Your task to perform on an android device: What is the recent news? Image 0: 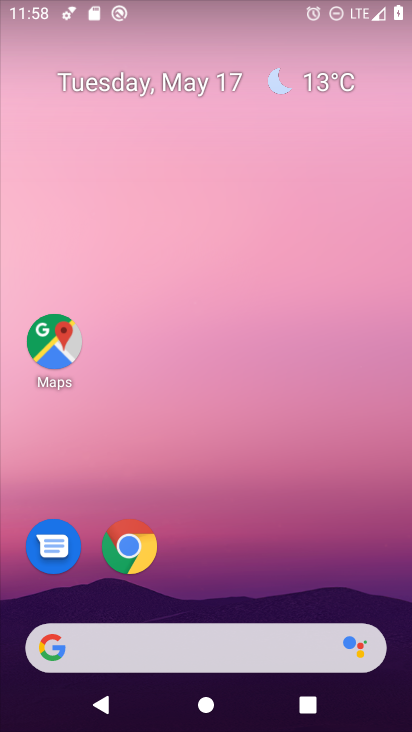
Step 0: click (126, 648)
Your task to perform on an android device: What is the recent news? Image 1: 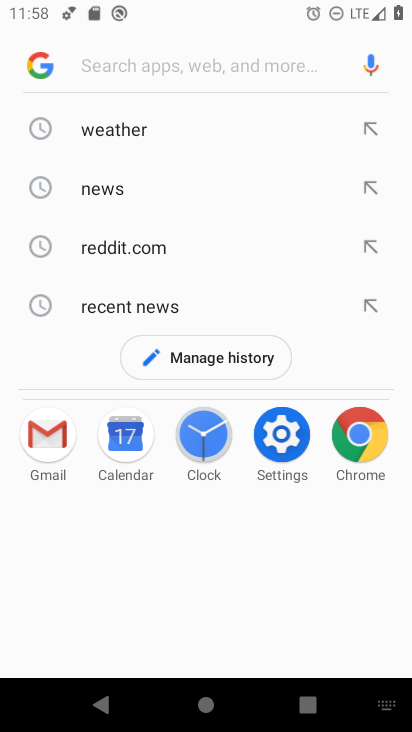
Step 1: click (147, 309)
Your task to perform on an android device: What is the recent news? Image 2: 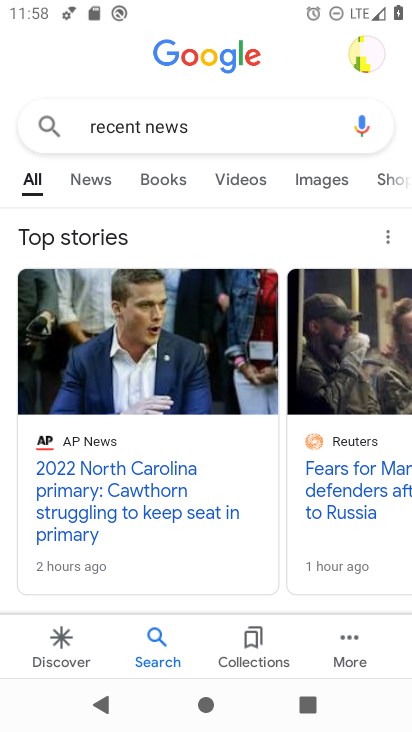
Step 2: drag from (324, 544) to (12, 501)
Your task to perform on an android device: What is the recent news? Image 3: 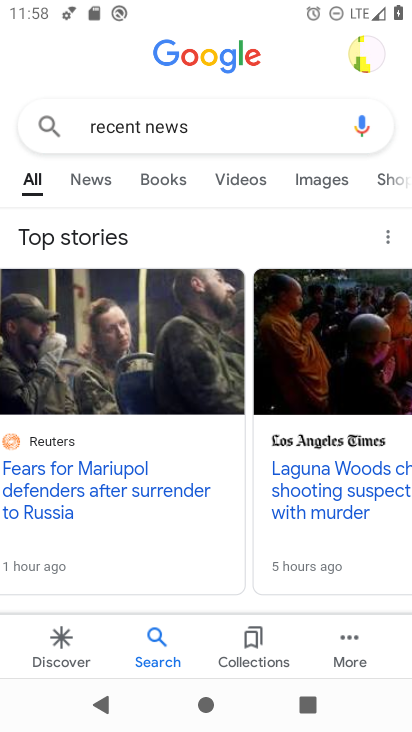
Step 3: click (89, 183)
Your task to perform on an android device: What is the recent news? Image 4: 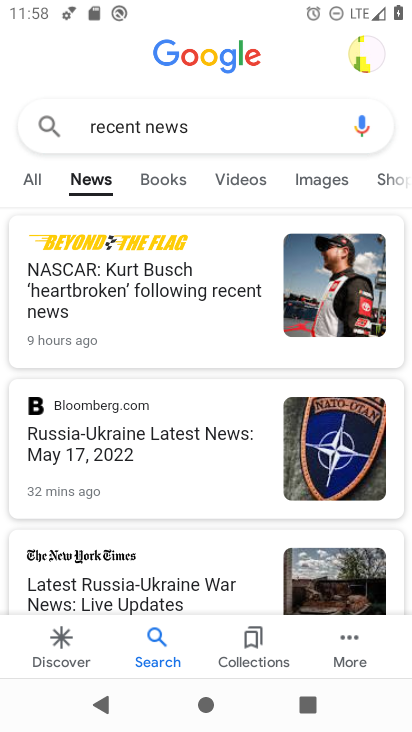
Step 4: click (83, 460)
Your task to perform on an android device: What is the recent news? Image 5: 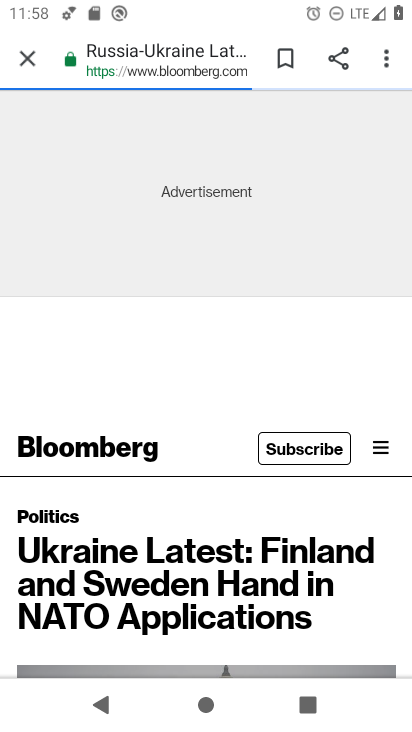
Step 5: task complete